Your task to perform on an android device: change the clock display to digital Image 0: 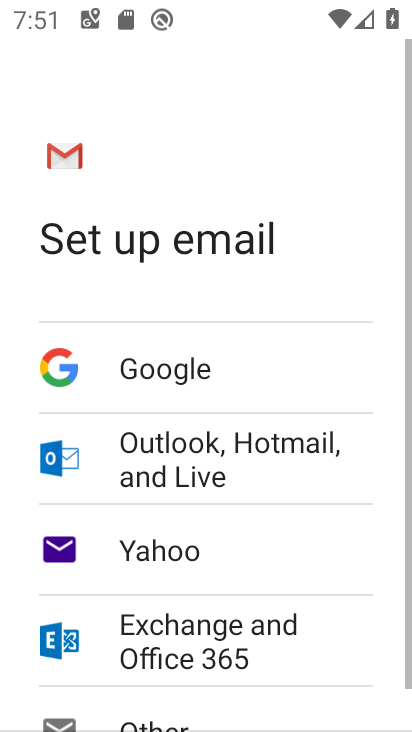
Step 0: press home button
Your task to perform on an android device: change the clock display to digital Image 1: 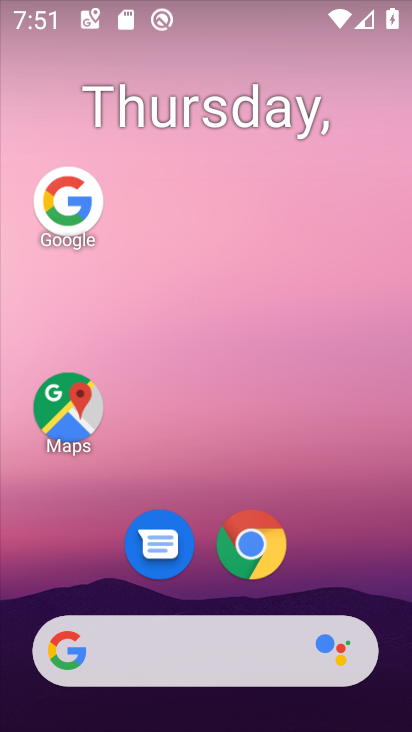
Step 1: drag from (212, 702) to (245, 144)
Your task to perform on an android device: change the clock display to digital Image 2: 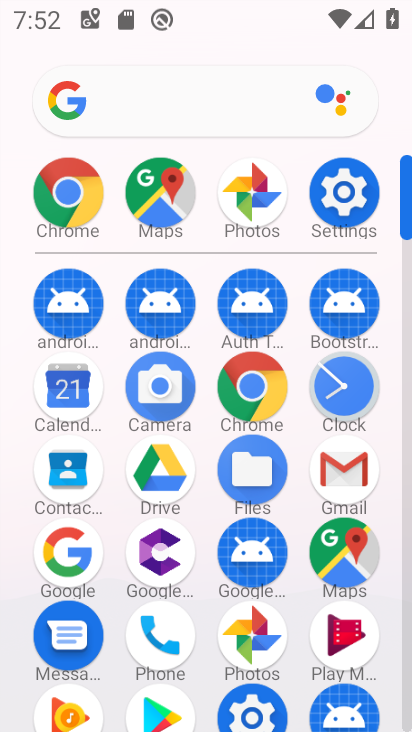
Step 2: click (338, 378)
Your task to perform on an android device: change the clock display to digital Image 3: 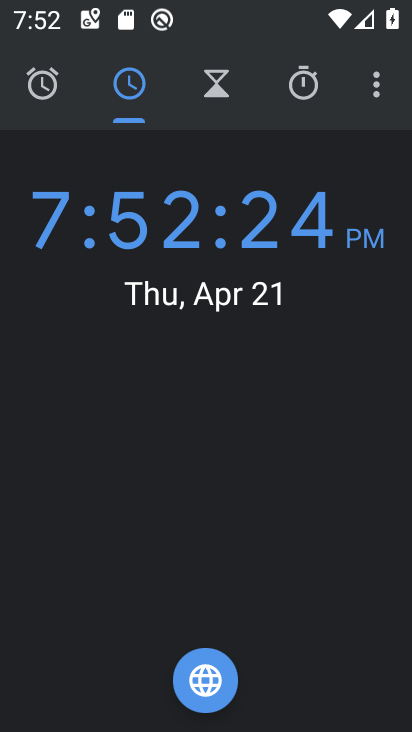
Step 3: click (364, 92)
Your task to perform on an android device: change the clock display to digital Image 4: 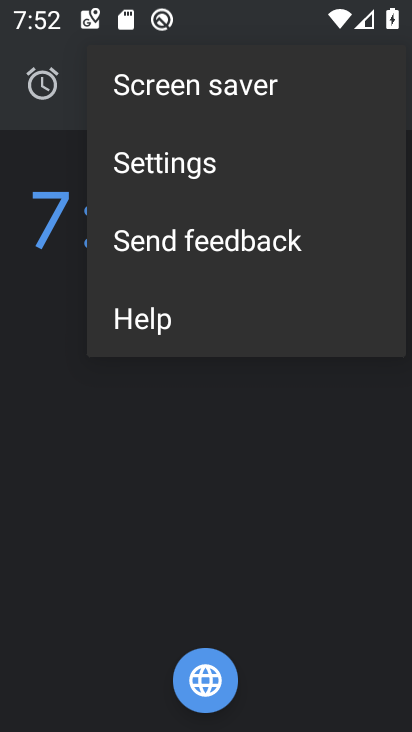
Step 4: click (227, 156)
Your task to perform on an android device: change the clock display to digital Image 5: 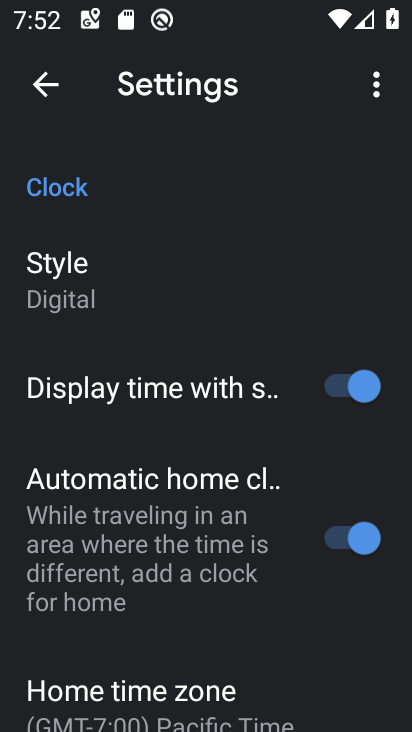
Step 5: click (123, 261)
Your task to perform on an android device: change the clock display to digital Image 6: 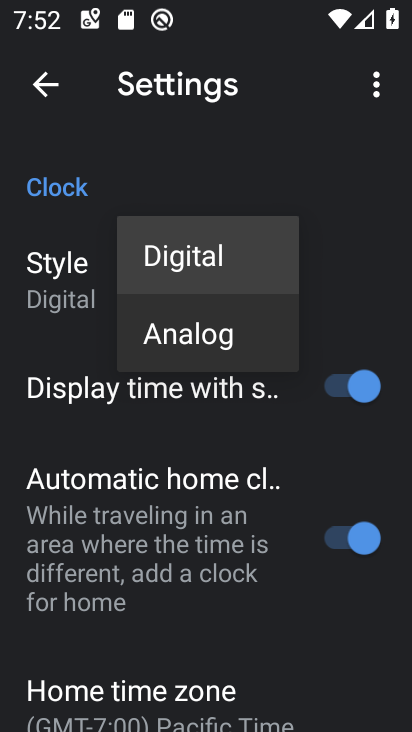
Step 6: click (187, 256)
Your task to perform on an android device: change the clock display to digital Image 7: 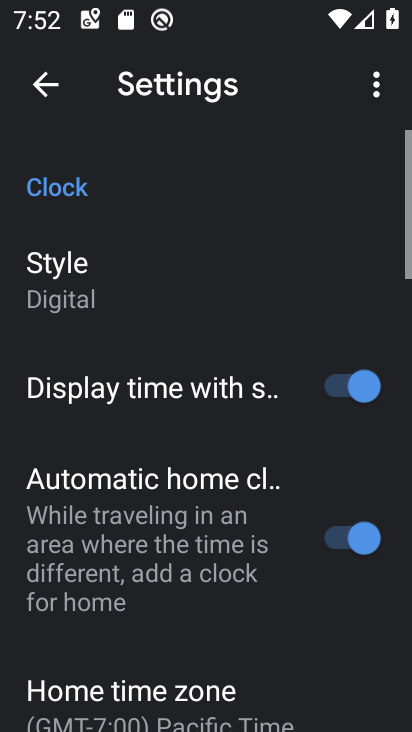
Step 7: task complete